Your task to perform on an android device: toggle improve location accuracy Image 0: 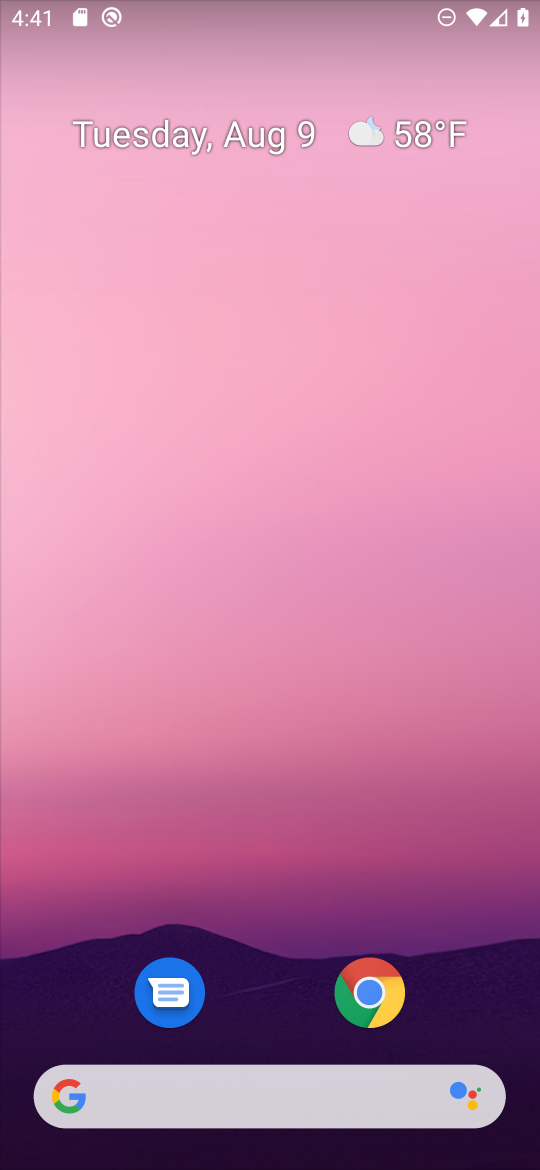
Step 0: drag from (305, 1069) to (299, 37)
Your task to perform on an android device: toggle improve location accuracy Image 1: 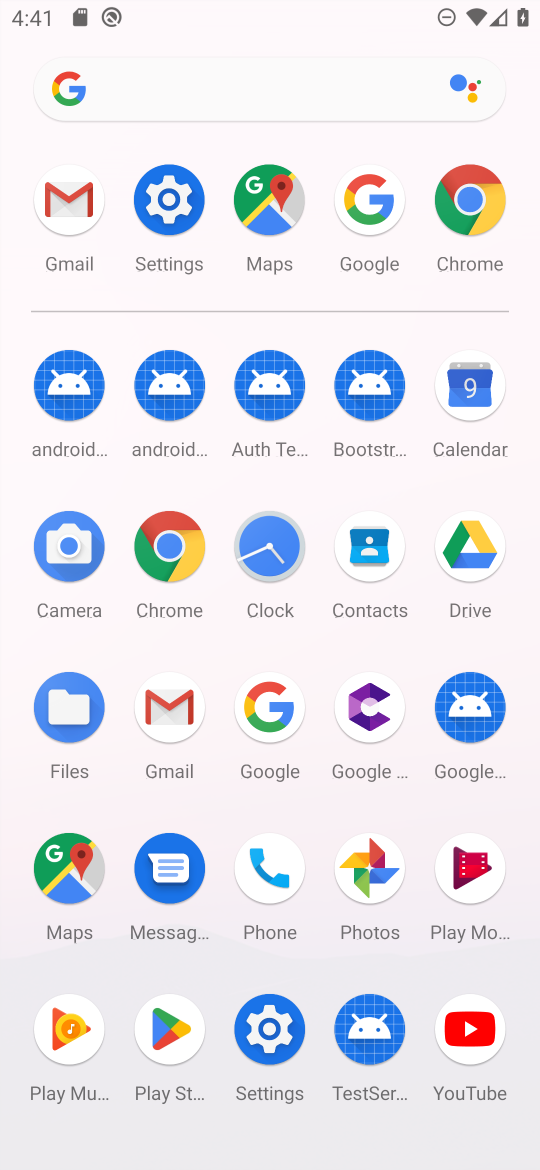
Step 1: click (165, 220)
Your task to perform on an android device: toggle improve location accuracy Image 2: 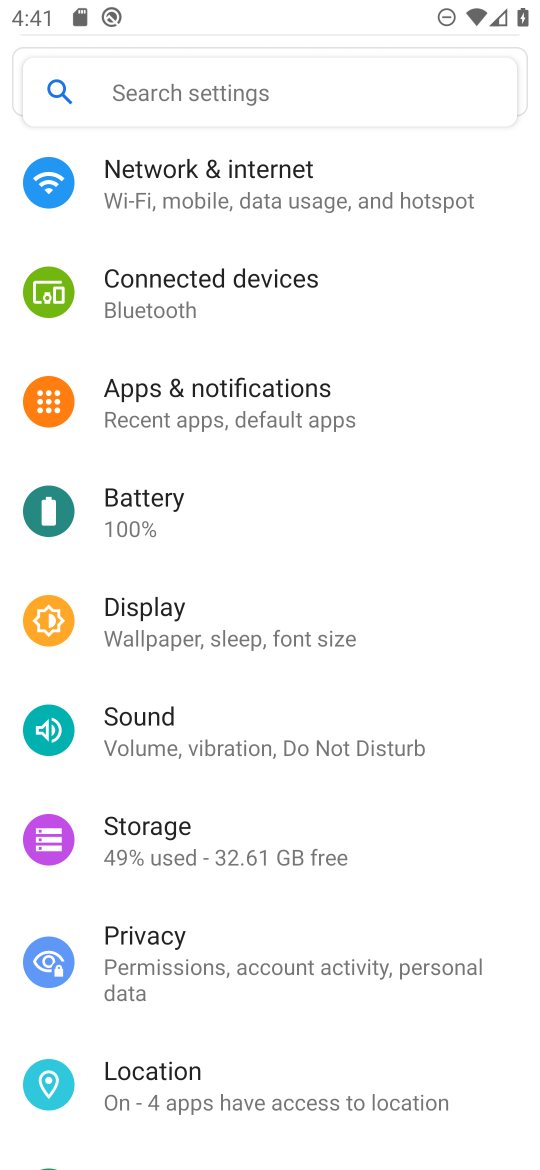
Step 2: click (264, 1084)
Your task to perform on an android device: toggle improve location accuracy Image 3: 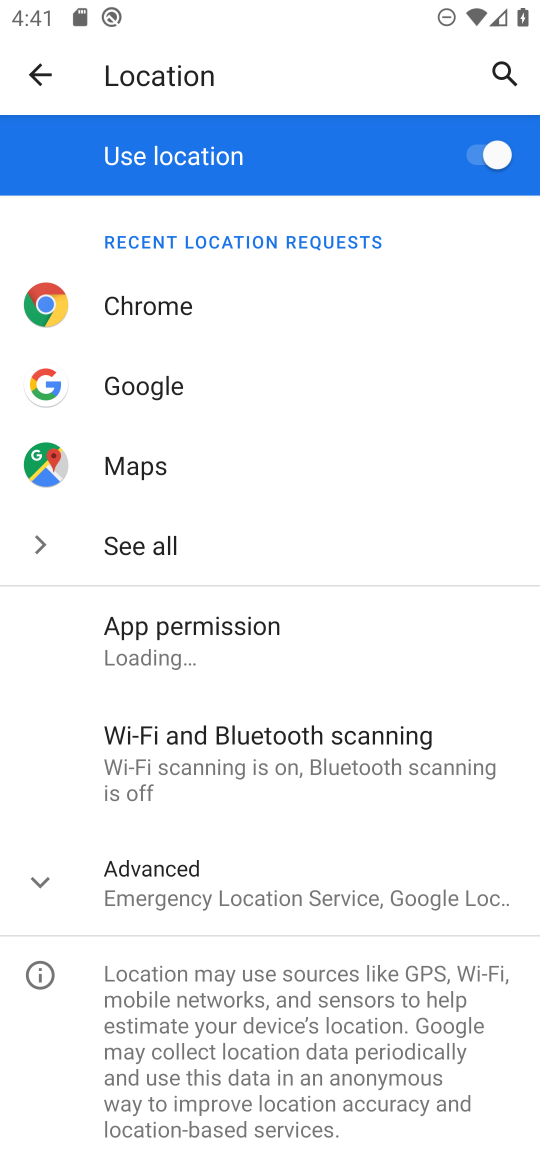
Step 3: click (254, 912)
Your task to perform on an android device: toggle improve location accuracy Image 4: 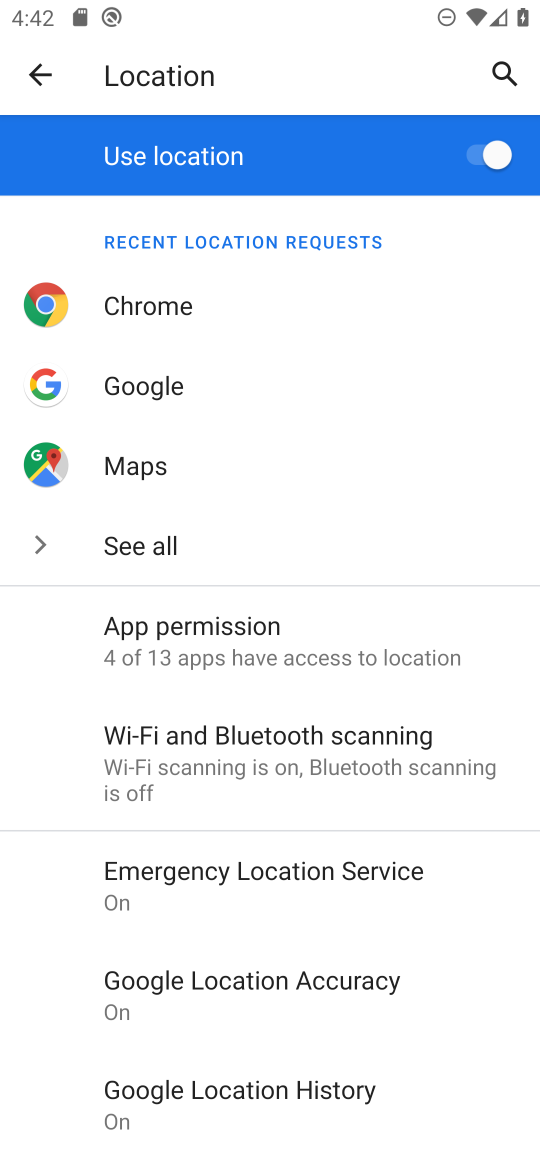
Step 4: click (300, 988)
Your task to perform on an android device: toggle improve location accuracy Image 5: 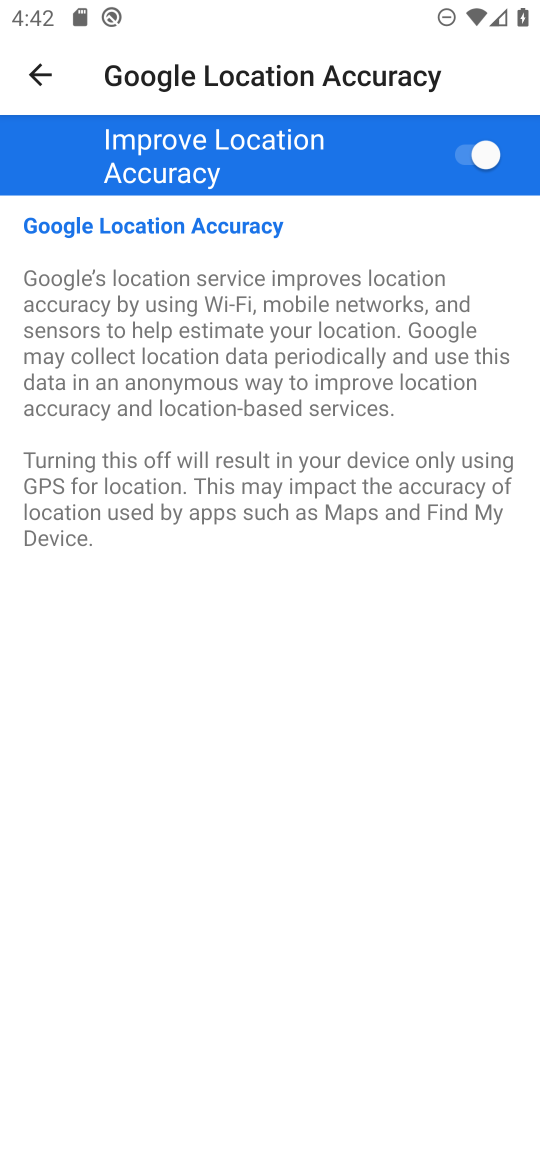
Step 5: click (497, 147)
Your task to perform on an android device: toggle improve location accuracy Image 6: 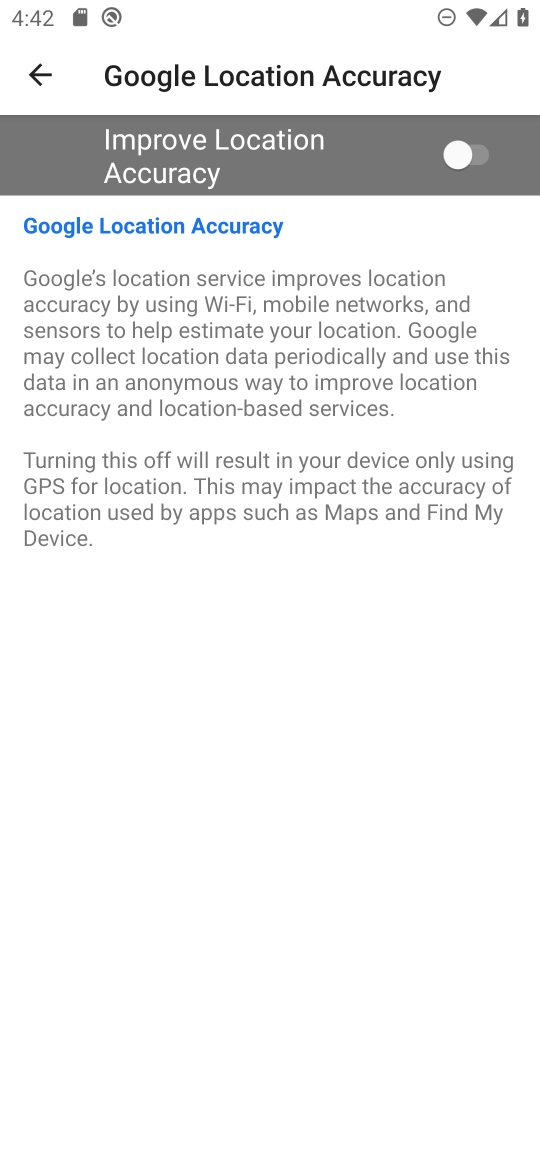
Step 6: task complete